Your task to perform on an android device: turn off translation in the chrome app Image 0: 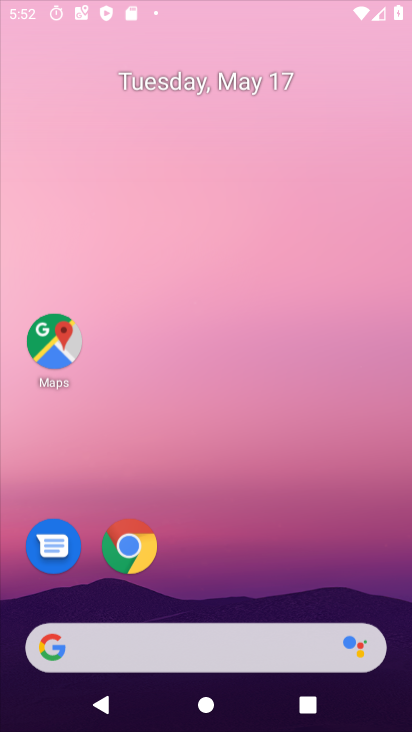
Step 0: click (226, 79)
Your task to perform on an android device: turn off translation in the chrome app Image 1: 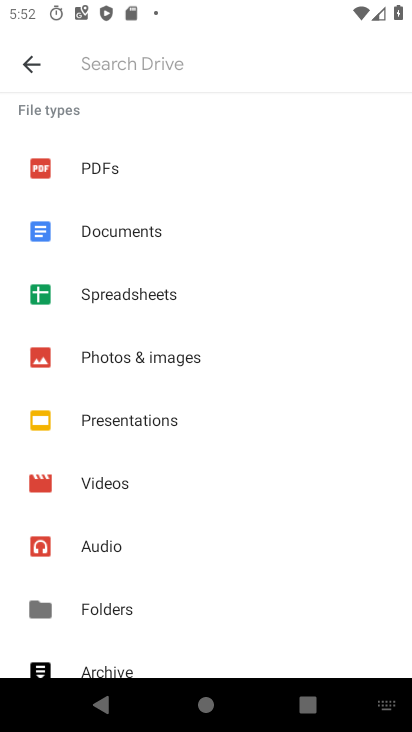
Step 1: press home button
Your task to perform on an android device: turn off translation in the chrome app Image 2: 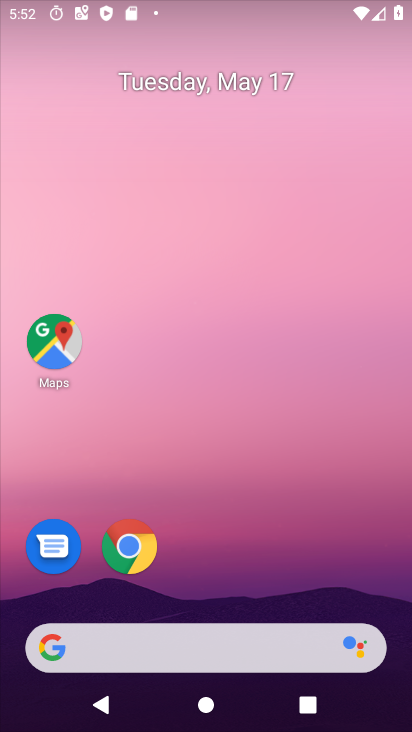
Step 2: drag from (206, 588) to (178, 49)
Your task to perform on an android device: turn off translation in the chrome app Image 3: 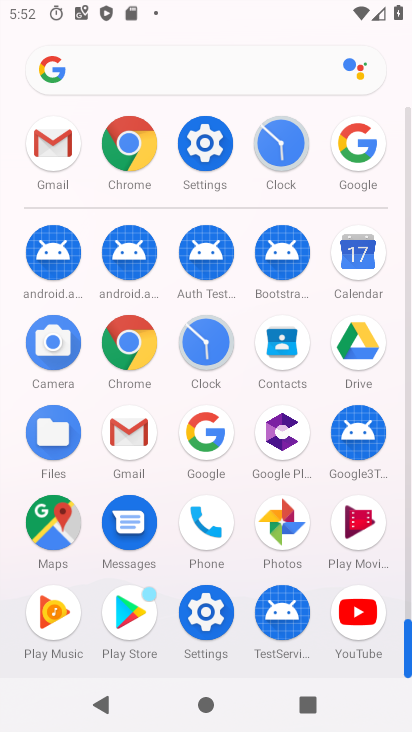
Step 3: drag from (165, 624) to (148, 287)
Your task to perform on an android device: turn off translation in the chrome app Image 4: 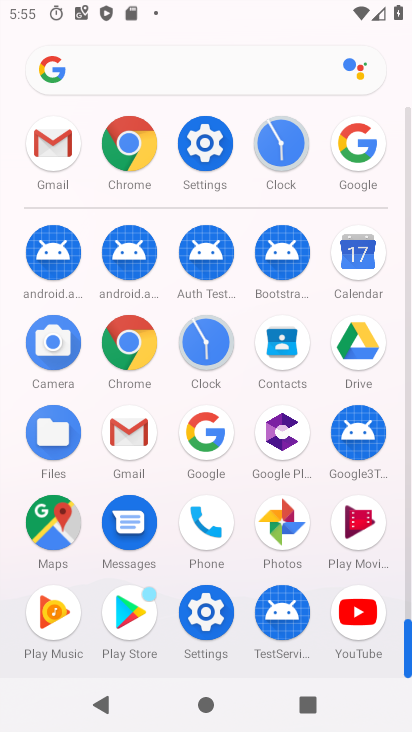
Step 4: click (273, 345)
Your task to perform on an android device: turn off translation in the chrome app Image 5: 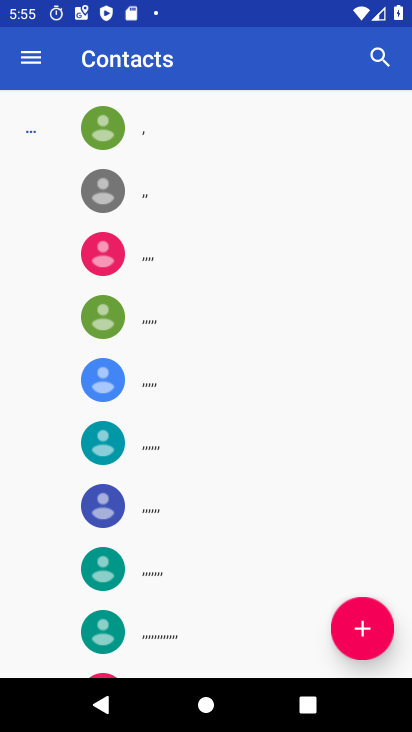
Step 5: click (279, 354)
Your task to perform on an android device: turn off translation in the chrome app Image 6: 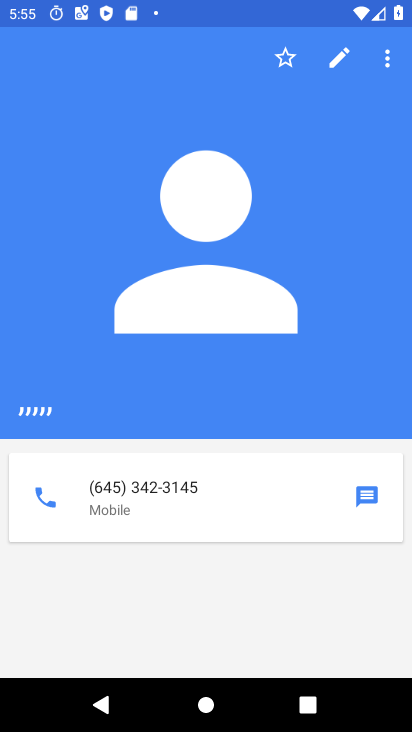
Step 6: click (339, 230)
Your task to perform on an android device: turn off translation in the chrome app Image 7: 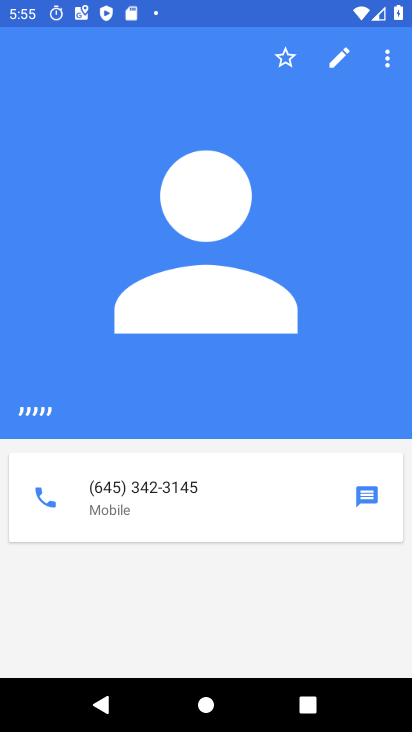
Step 7: click (338, 72)
Your task to perform on an android device: turn off translation in the chrome app Image 8: 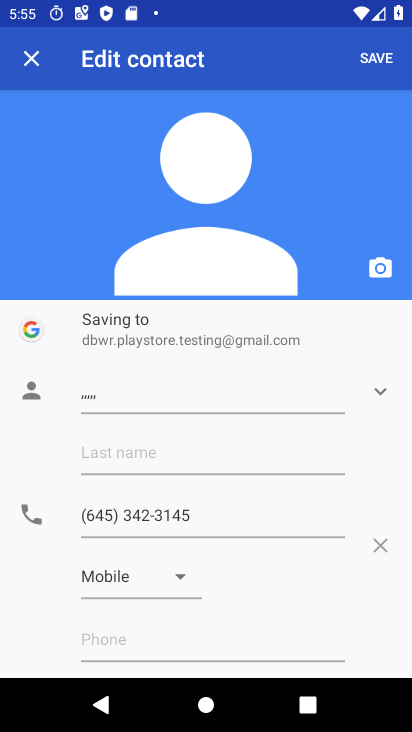
Step 8: click (148, 401)
Your task to perform on an android device: turn off translation in the chrome app Image 9: 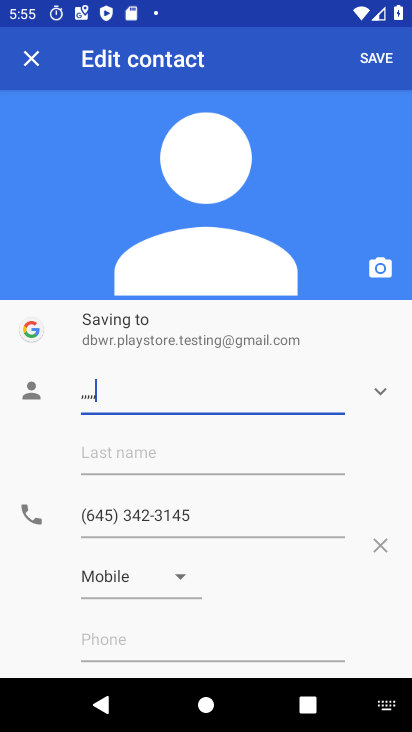
Step 9: click (251, 397)
Your task to perform on an android device: turn off translation in the chrome app Image 10: 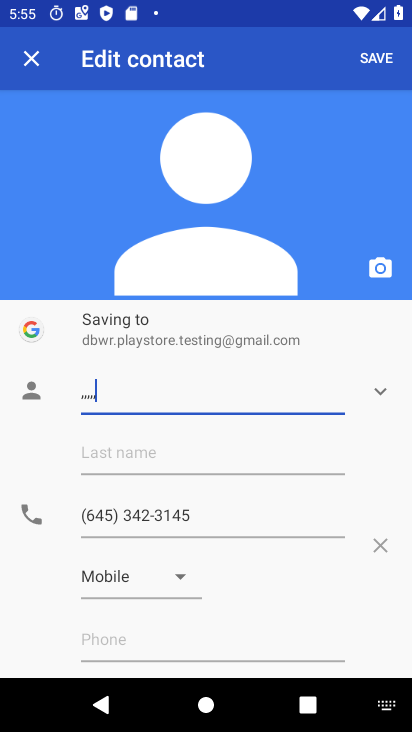
Step 10: click (136, 409)
Your task to perform on an android device: turn off translation in the chrome app Image 11: 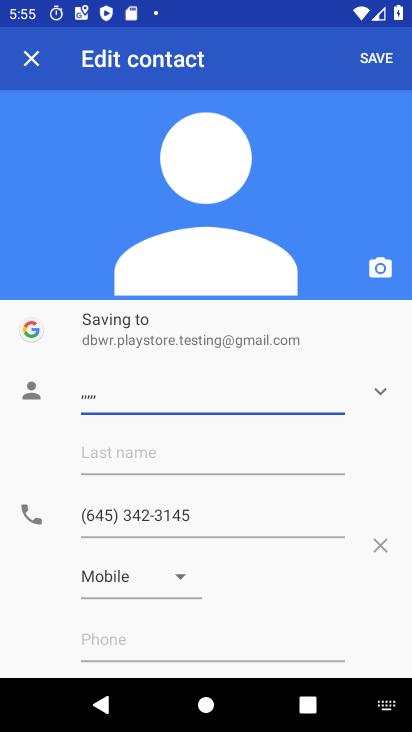
Step 11: click (360, 58)
Your task to perform on an android device: turn off translation in the chrome app Image 12: 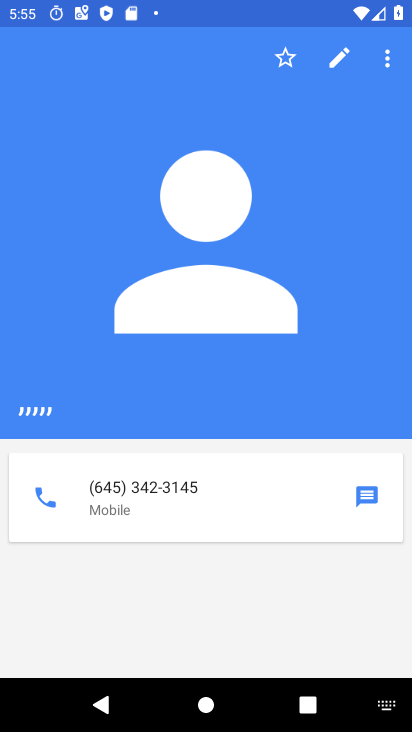
Step 12: task complete